Your task to perform on an android device: check out phone information Image 0: 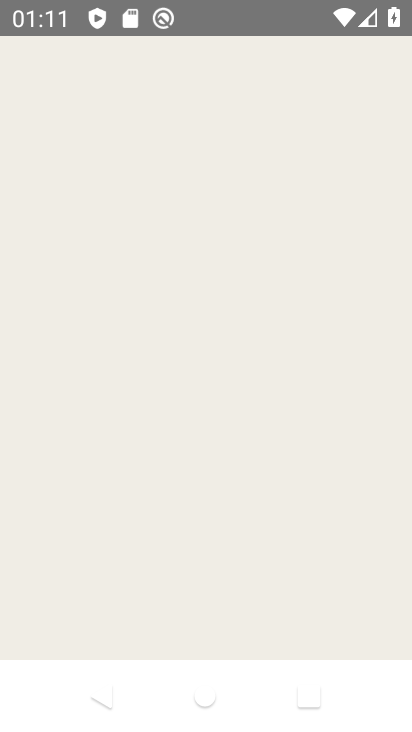
Step 0: drag from (331, 517) to (279, 207)
Your task to perform on an android device: check out phone information Image 1: 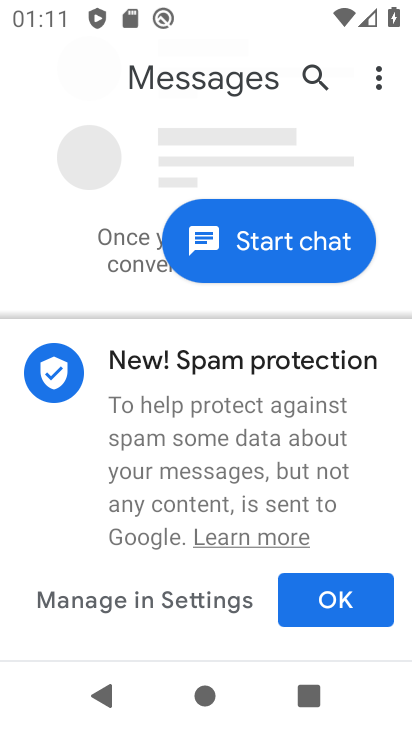
Step 1: press home button
Your task to perform on an android device: check out phone information Image 2: 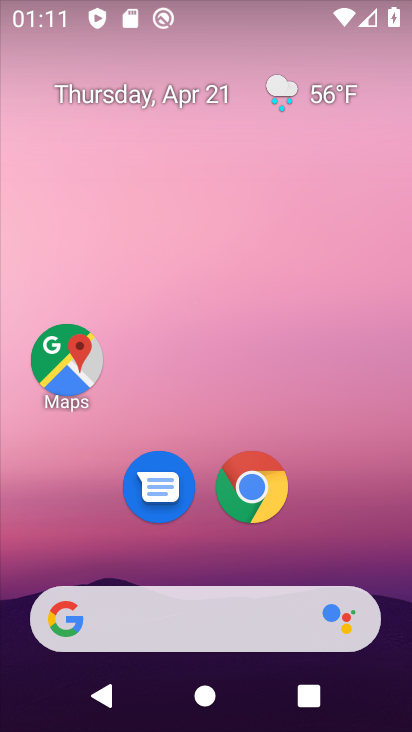
Step 2: drag from (228, 540) to (212, 102)
Your task to perform on an android device: check out phone information Image 3: 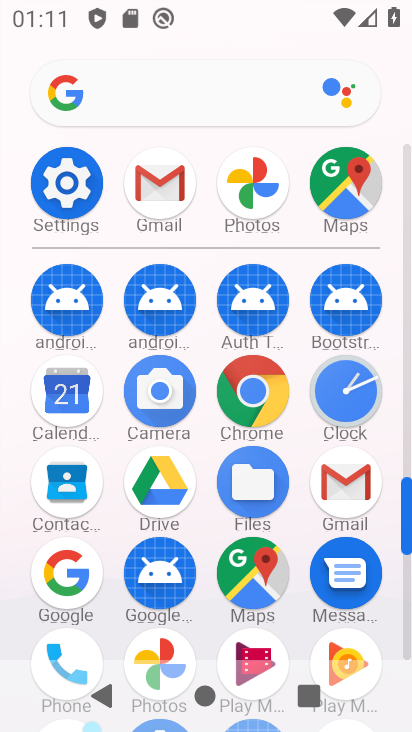
Step 3: click (45, 181)
Your task to perform on an android device: check out phone information Image 4: 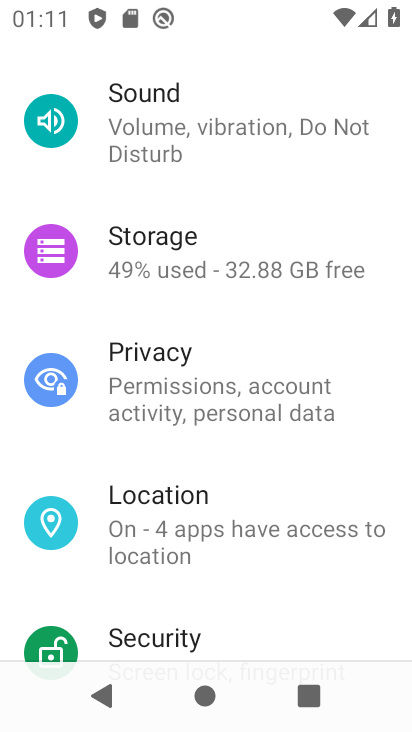
Step 4: drag from (206, 462) to (198, 332)
Your task to perform on an android device: check out phone information Image 5: 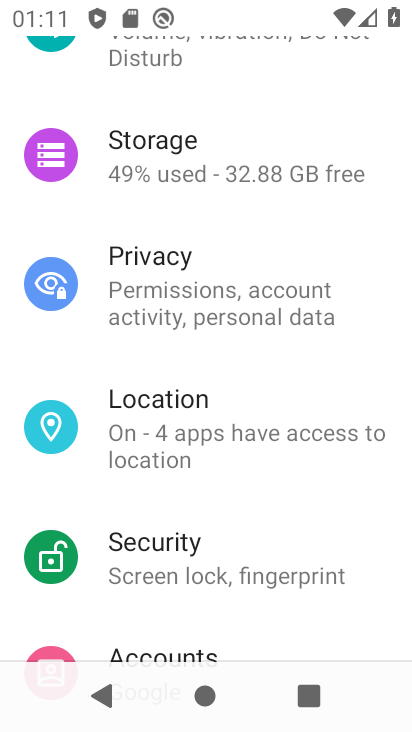
Step 5: drag from (198, 441) to (209, 332)
Your task to perform on an android device: check out phone information Image 6: 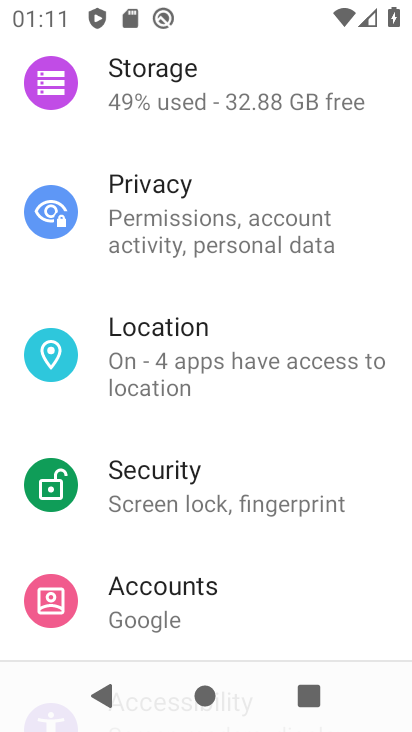
Step 6: drag from (191, 460) to (204, 339)
Your task to perform on an android device: check out phone information Image 7: 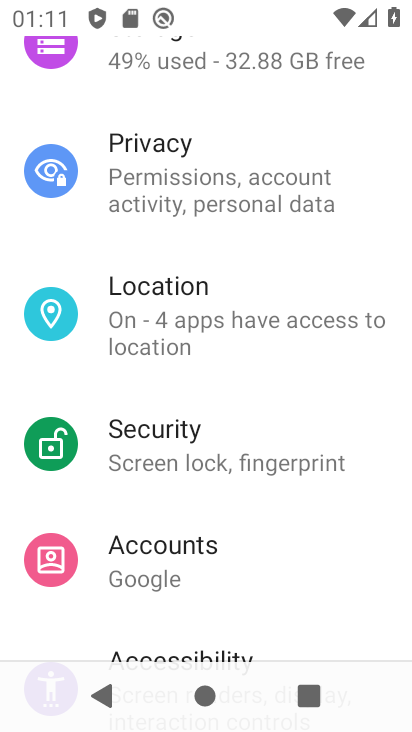
Step 7: drag from (195, 438) to (226, 333)
Your task to perform on an android device: check out phone information Image 8: 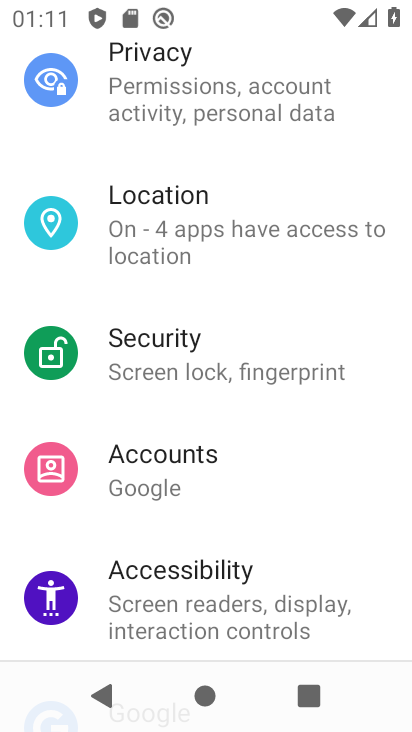
Step 8: drag from (235, 484) to (240, 404)
Your task to perform on an android device: check out phone information Image 9: 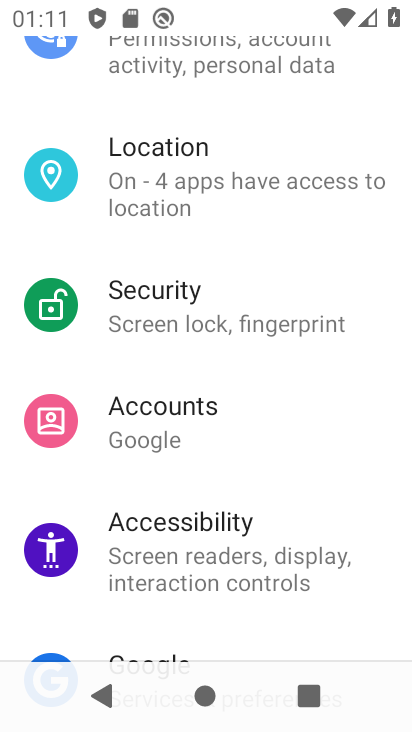
Step 9: drag from (223, 521) to (225, 428)
Your task to perform on an android device: check out phone information Image 10: 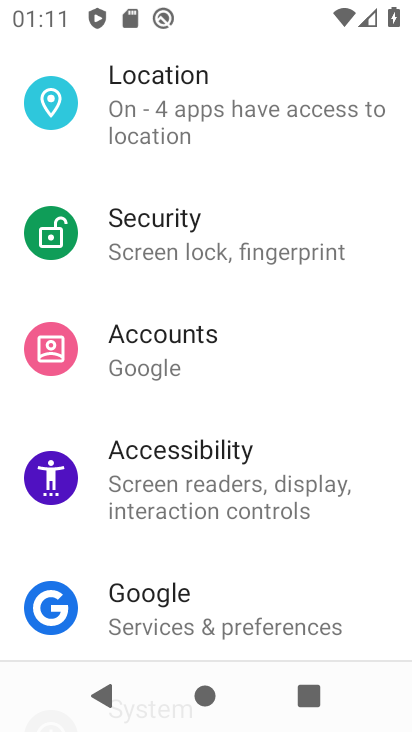
Step 10: drag from (236, 500) to (246, 392)
Your task to perform on an android device: check out phone information Image 11: 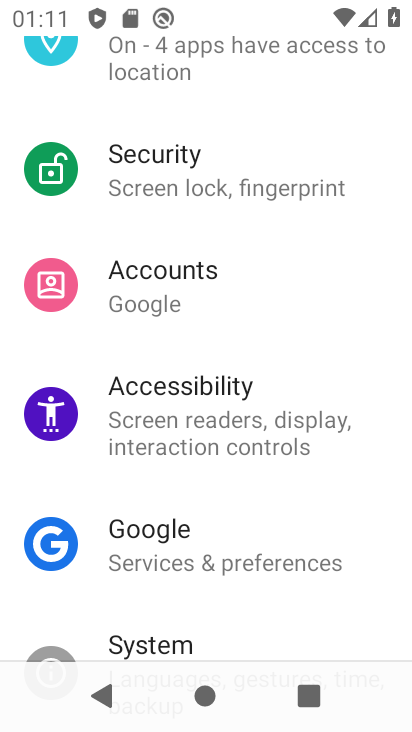
Step 11: drag from (256, 560) to (267, 408)
Your task to perform on an android device: check out phone information Image 12: 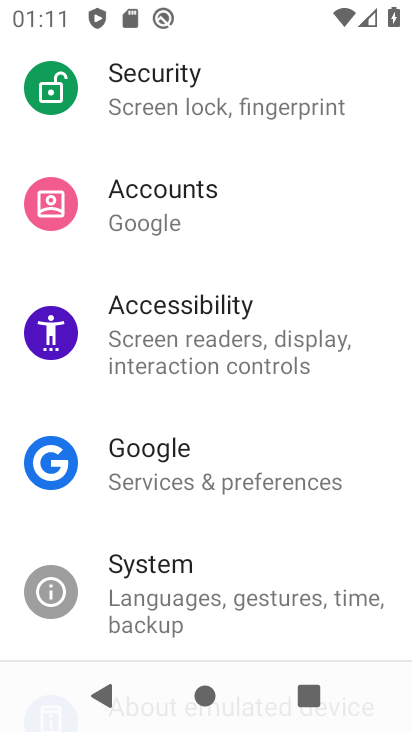
Step 12: drag from (224, 560) to (243, 394)
Your task to perform on an android device: check out phone information Image 13: 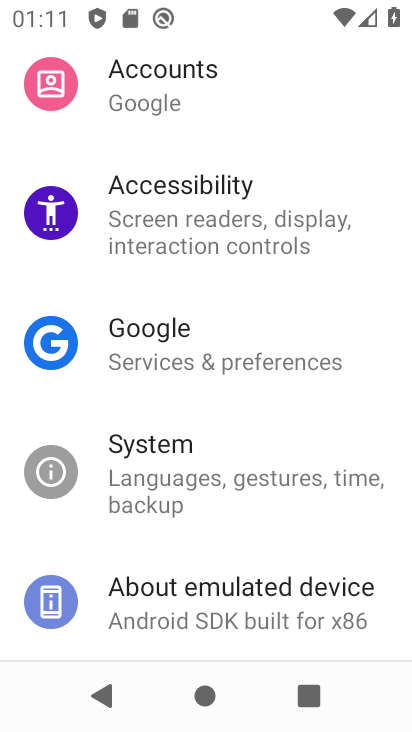
Step 13: drag from (239, 557) to (296, 394)
Your task to perform on an android device: check out phone information Image 14: 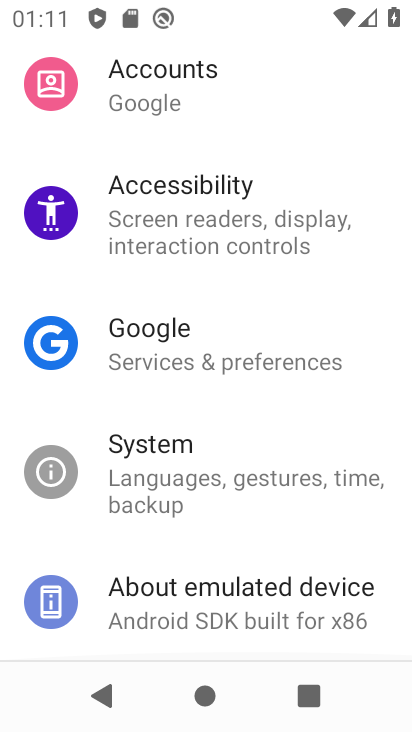
Step 14: click (256, 591)
Your task to perform on an android device: check out phone information Image 15: 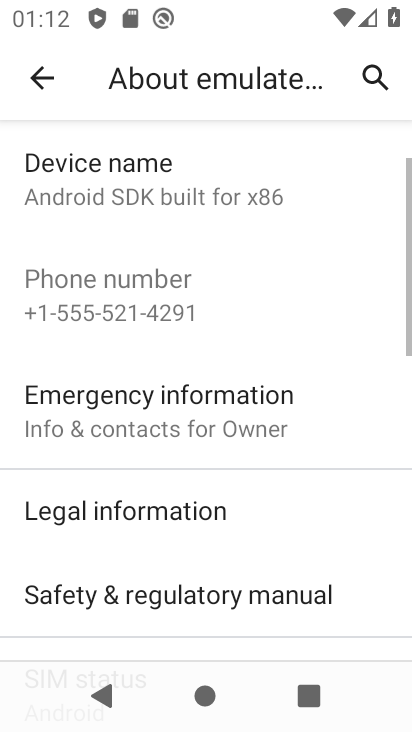
Step 15: task complete